Your task to perform on an android device: Open the calendar app, open the side menu, and click the "Day" option Image 0: 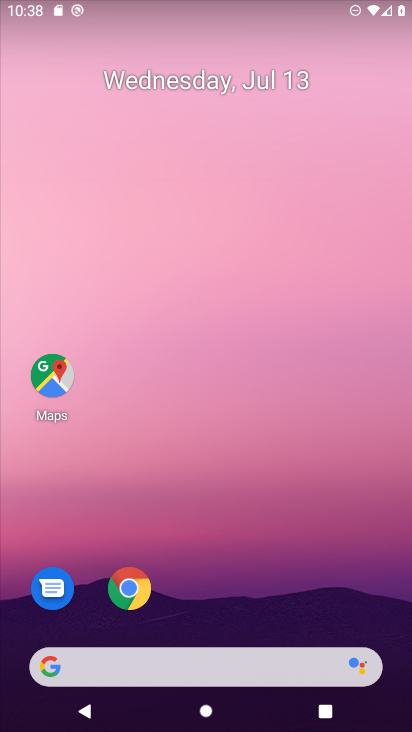
Step 0: drag from (186, 636) to (225, 58)
Your task to perform on an android device: Open the calendar app, open the side menu, and click the "Day" option Image 1: 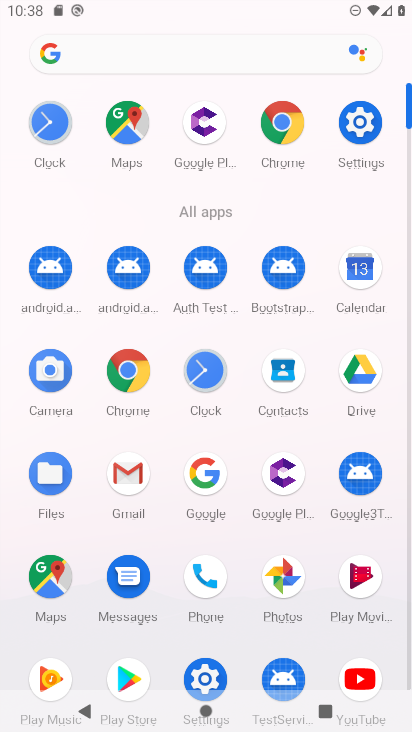
Step 1: click (381, 257)
Your task to perform on an android device: Open the calendar app, open the side menu, and click the "Day" option Image 2: 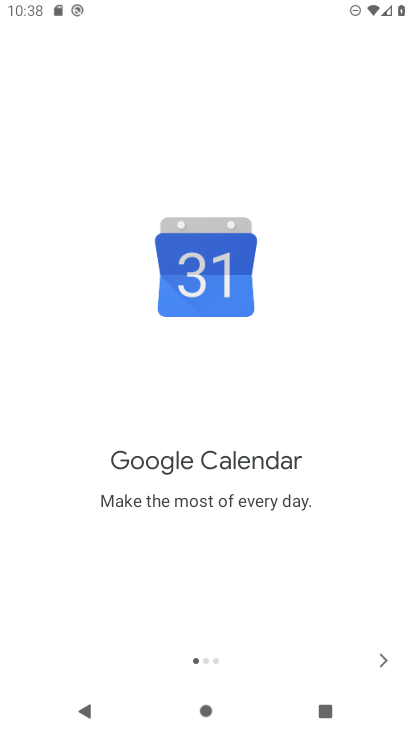
Step 2: click (384, 667)
Your task to perform on an android device: Open the calendar app, open the side menu, and click the "Day" option Image 3: 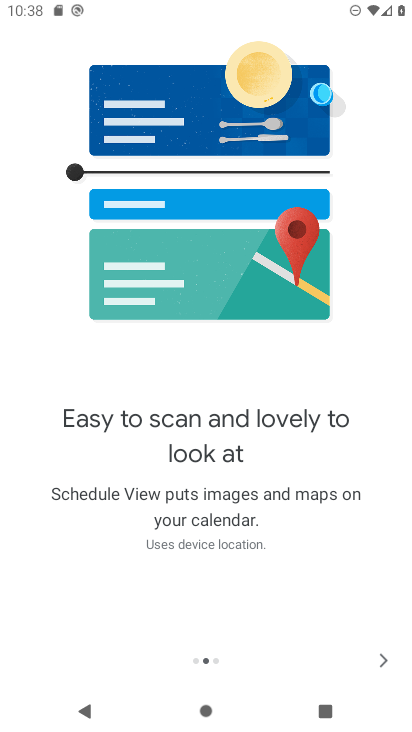
Step 3: click (380, 662)
Your task to perform on an android device: Open the calendar app, open the side menu, and click the "Day" option Image 4: 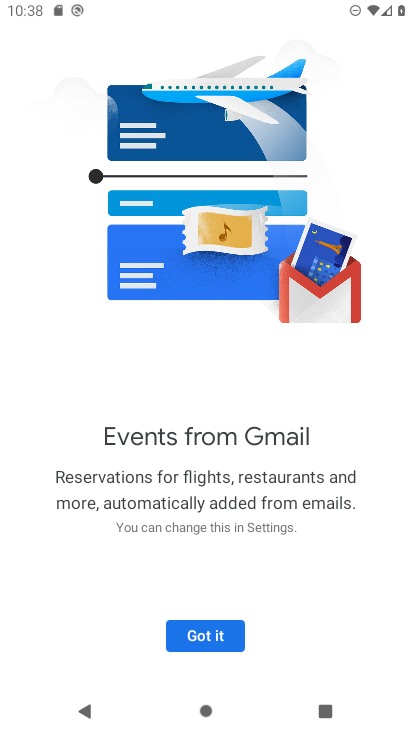
Step 4: click (219, 643)
Your task to perform on an android device: Open the calendar app, open the side menu, and click the "Day" option Image 5: 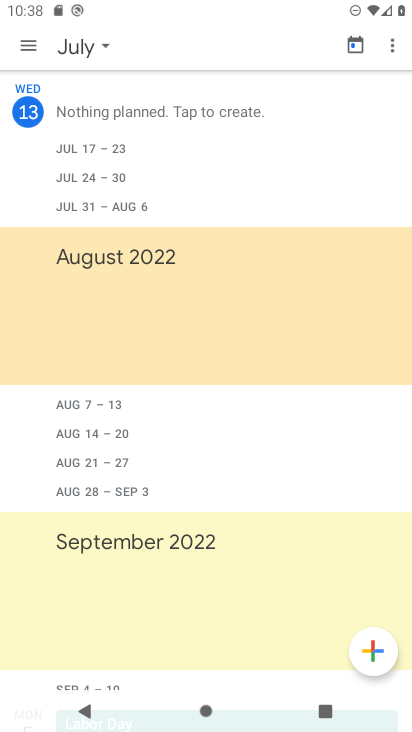
Step 5: click (34, 38)
Your task to perform on an android device: Open the calendar app, open the side menu, and click the "Day" option Image 6: 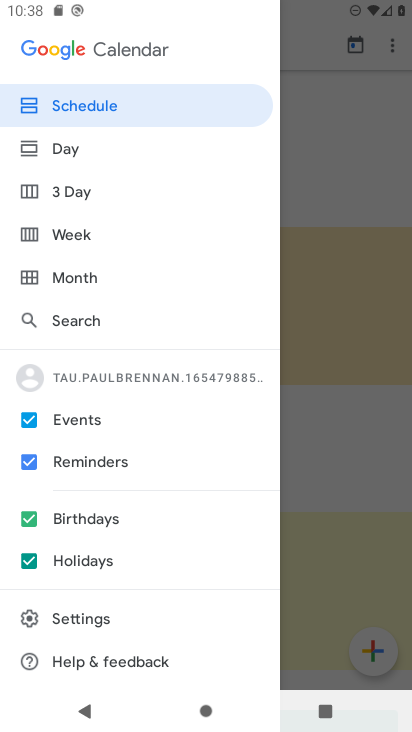
Step 6: click (80, 151)
Your task to perform on an android device: Open the calendar app, open the side menu, and click the "Day" option Image 7: 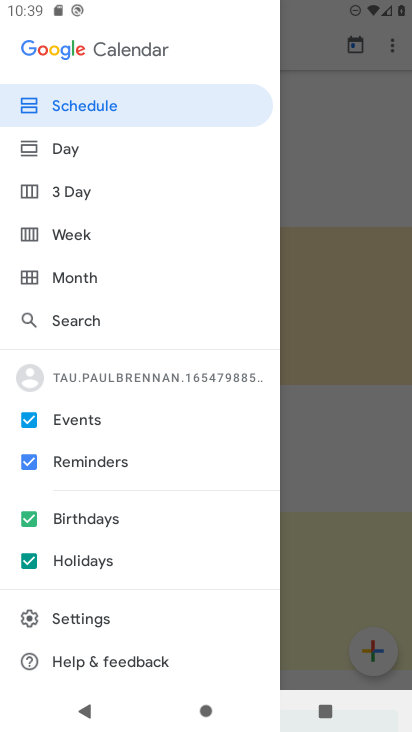
Step 7: click (99, 156)
Your task to perform on an android device: Open the calendar app, open the side menu, and click the "Day" option Image 8: 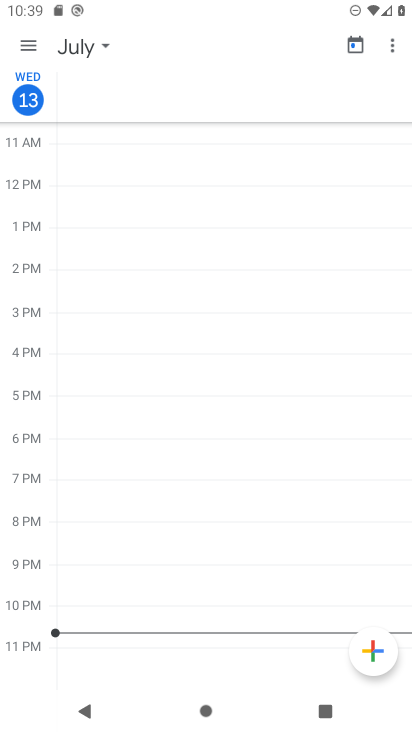
Step 8: task complete